Your task to perform on an android device: turn on airplane mode Image 0: 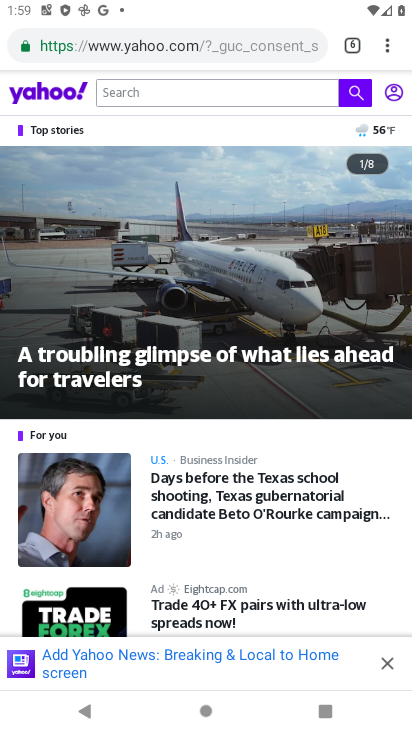
Step 0: press home button
Your task to perform on an android device: turn on airplane mode Image 1: 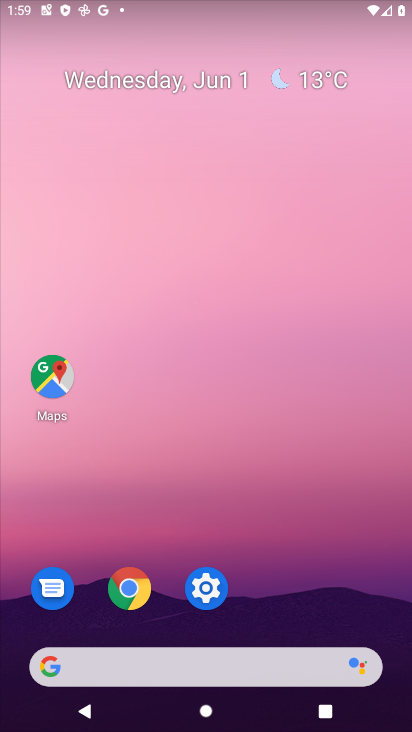
Step 1: click (207, 573)
Your task to perform on an android device: turn on airplane mode Image 2: 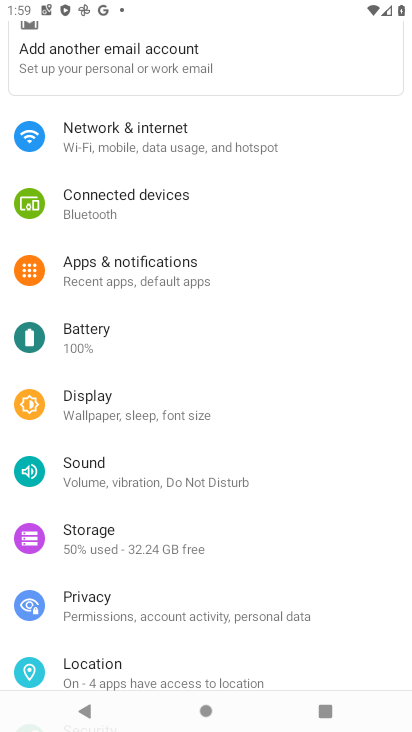
Step 2: click (156, 138)
Your task to perform on an android device: turn on airplane mode Image 3: 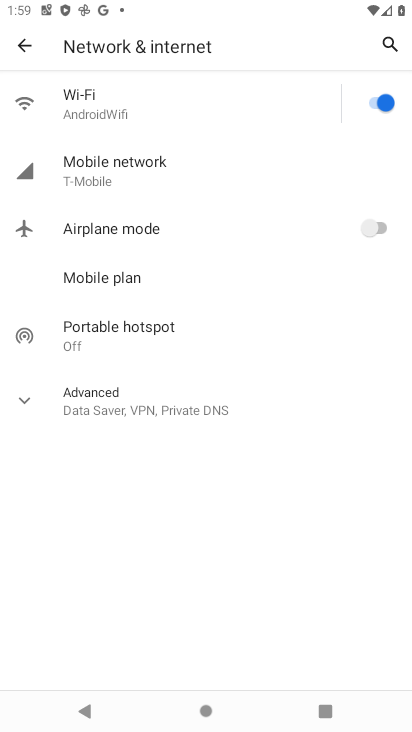
Step 3: click (369, 221)
Your task to perform on an android device: turn on airplane mode Image 4: 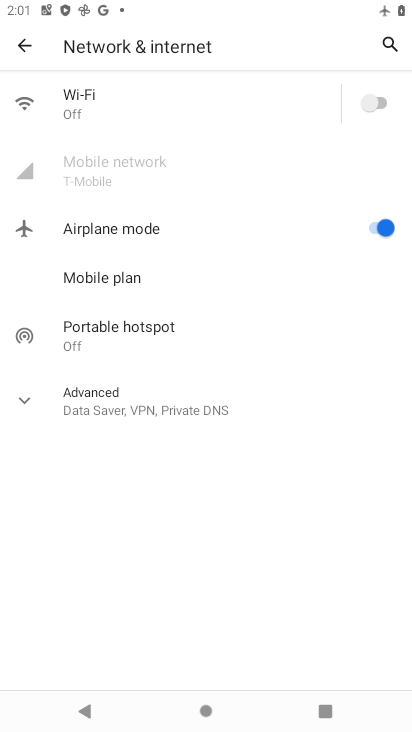
Step 4: task complete